Your task to perform on an android device: set an alarm Image 0: 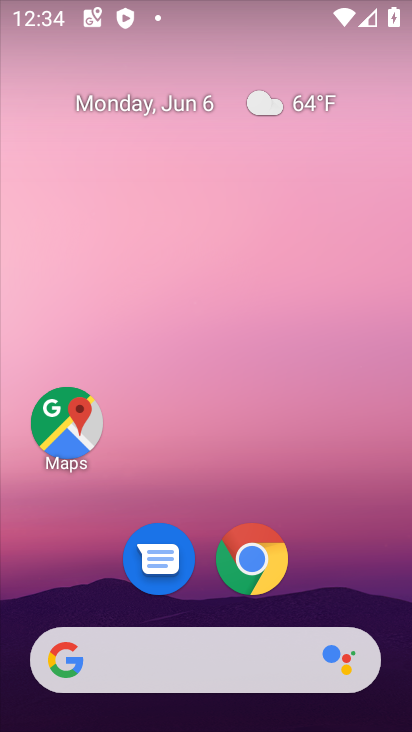
Step 0: drag from (239, 658) to (87, 129)
Your task to perform on an android device: set an alarm Image 1: 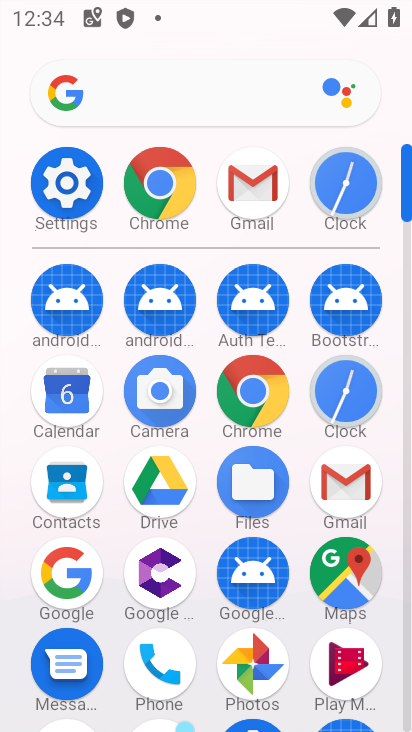
Step 1: click (363, 402)
Your task to perform on an android device: set an alarm Image 2: 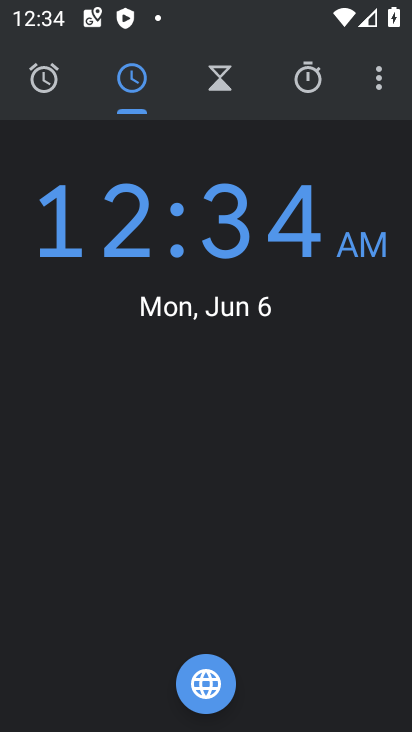
Step 2: click (29, 95)
Your task to perform on an android device: set an alarm Image 3: 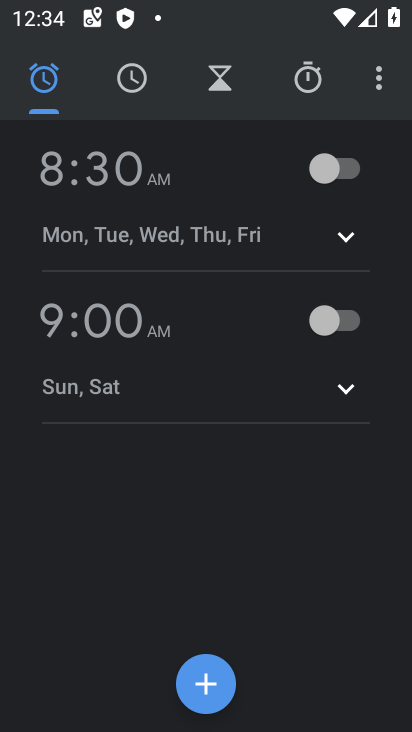
Step 3: click (342, 164)
Your task to perform on an android device: set an alarm Image 4: 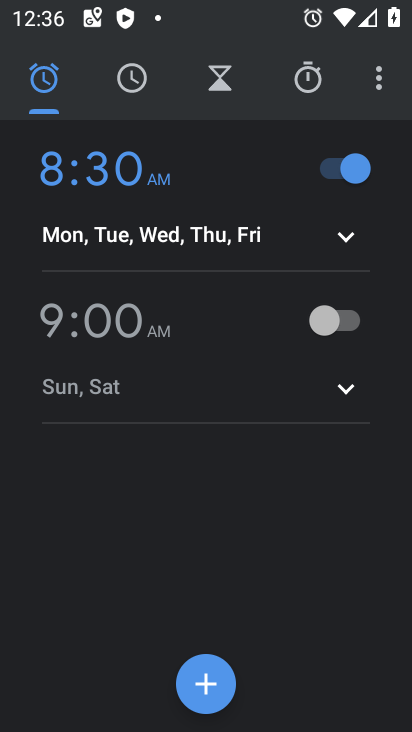
Step 4: task complete